Your task to perform on an android device: change the clock style Image 0: 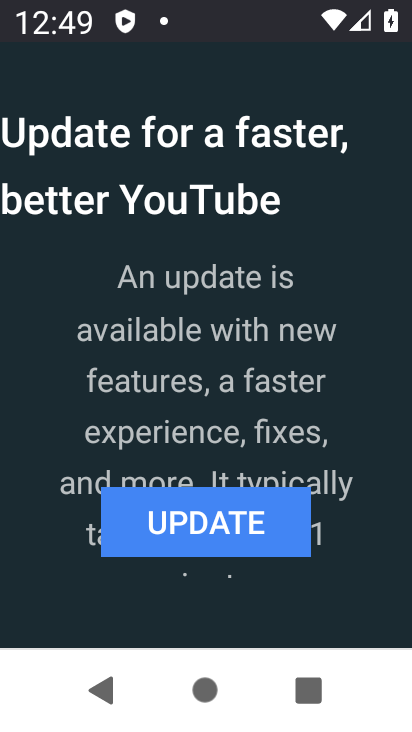
Step 0: press home button
Your task to perform on an android device: change the clock style Image 1: 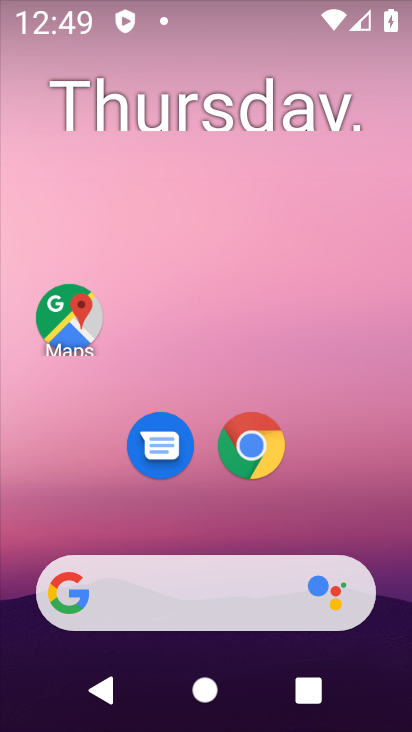
Step 1: drag from (192, 506) to (202, 102)
Your task to perform on an android device: change the clock style Image 2: 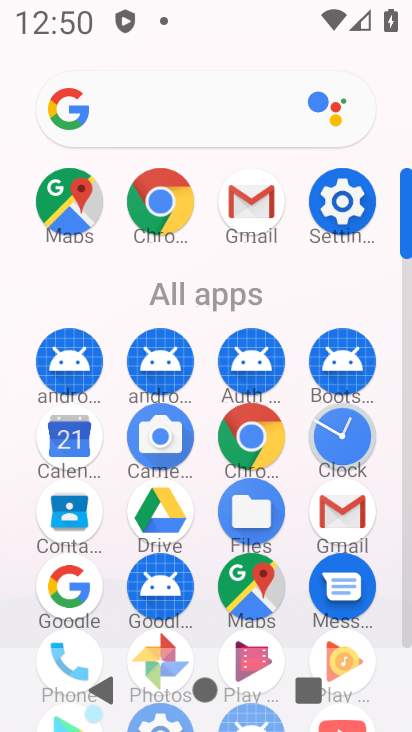
Step 2: click (351, 430)
Your task to perform on an android device: change the clock style Image 3: 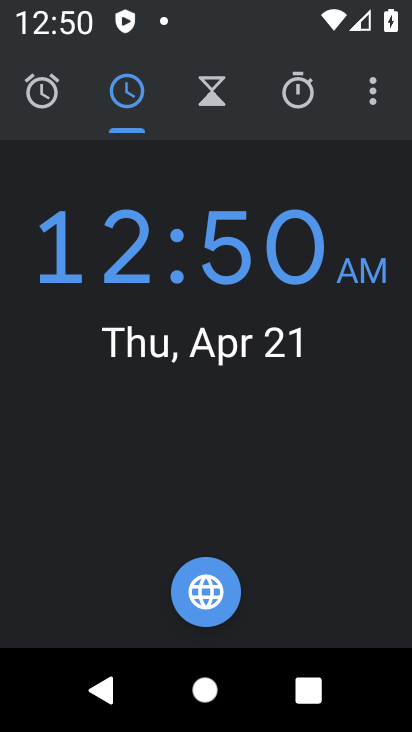
Step 3: click (372, 75)
Your task to perform on an android device: change the clock style Image 4: 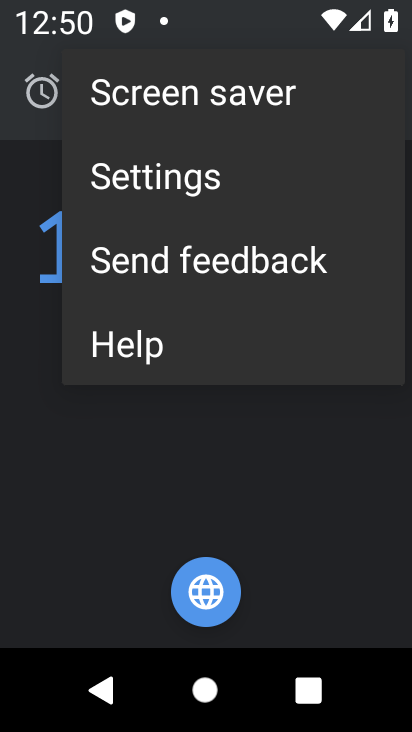
Step 4: click (215, 170)
Your task to perform on an android device: change the clock style Image 5: 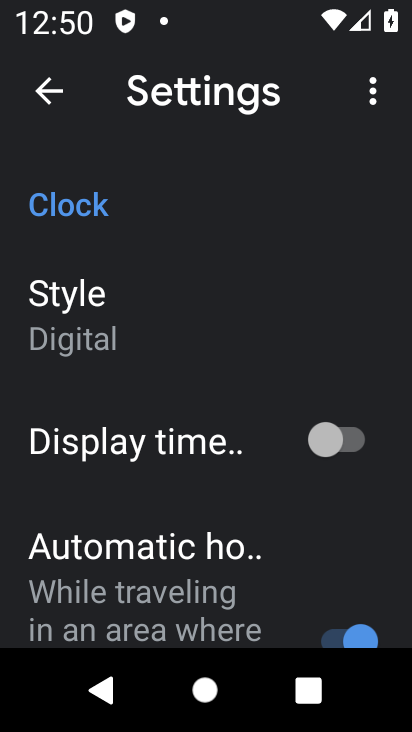
Step 5: click (109, 291)
Your task to perform on an android device: change the clock style Image 6: 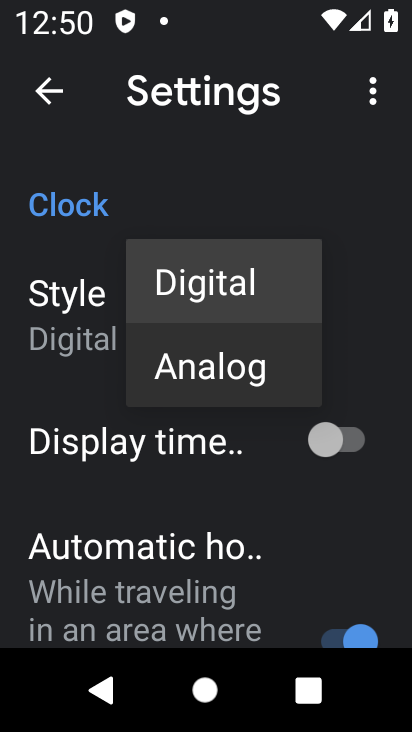
Step 6: click (247, 388)
Your task to perform on an android device: change the clock style Image 7: 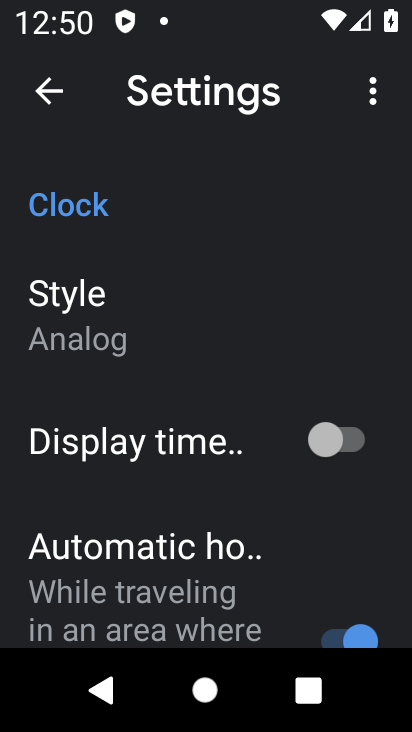
Step 7: task complete